Your task to perform on an android device: Search for Mexican restaurants on Maps Image 0: 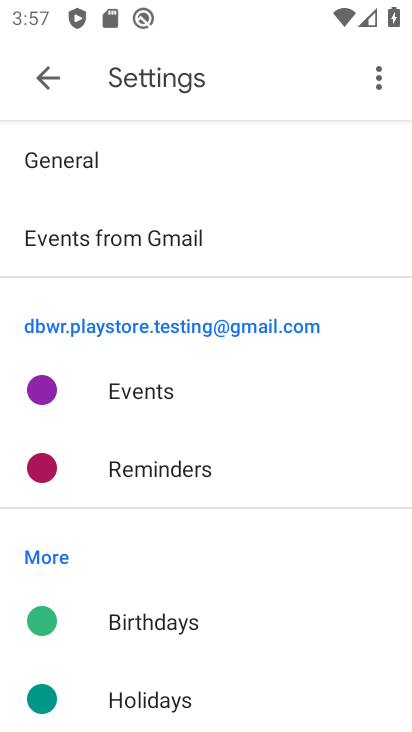
Step 0: press home button
Your task to perform on an android device: Search for Mexican restaurants on Maps Image 1: 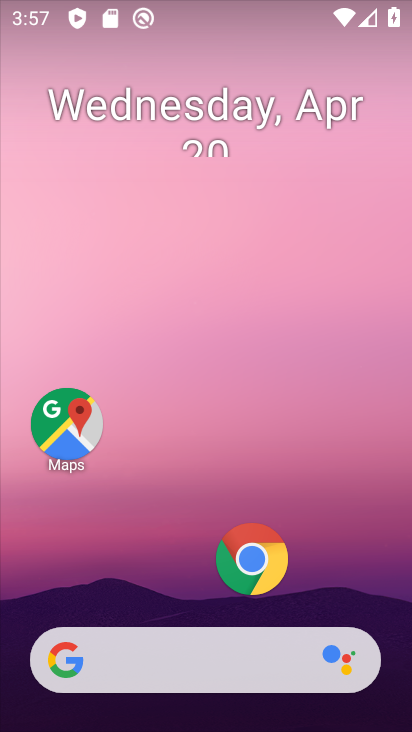
Step 1: click (50, 423)
Your task to perform on an android device: Search for Mexican restaurants on Maps Image 2: 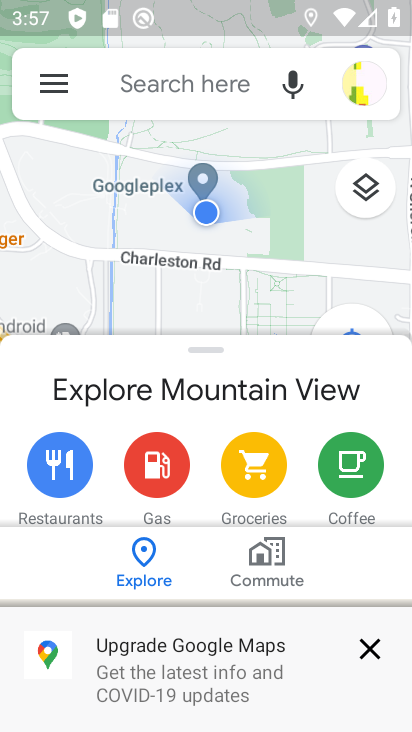
Step 2: click (171, 102)
Your task to perform on an android device: Search for Mexican restaurants on Maps Image 3: 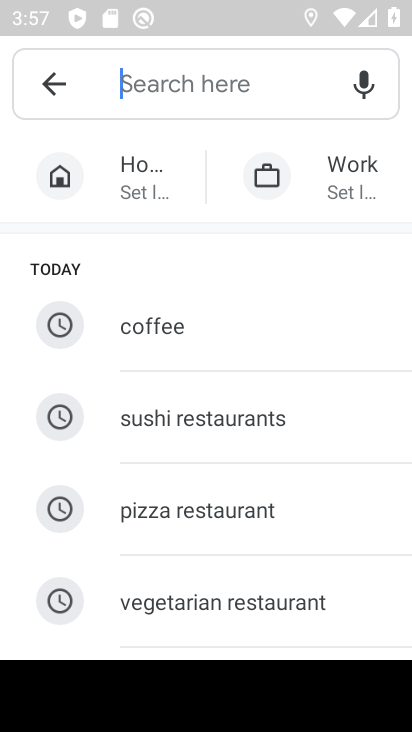
Step 3: type "Mexican restaurants"
Your task to perform on an android device: Search for Mexican restaurants on Maps Image 4: 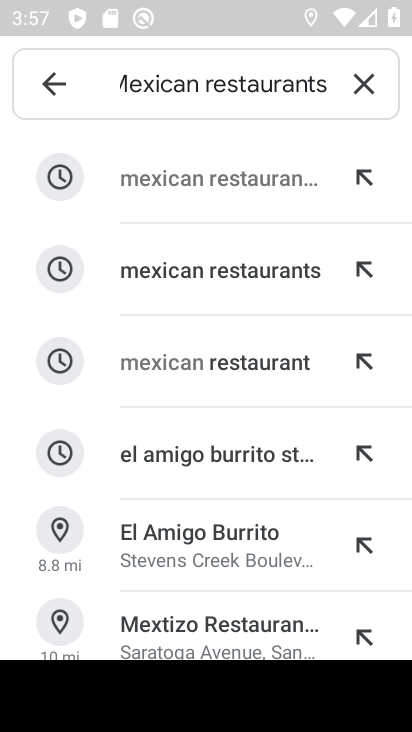
Step 4: click (148, 187)
Your task to perform on an android device: Search for Mexican restaurants on Maps Image 5: 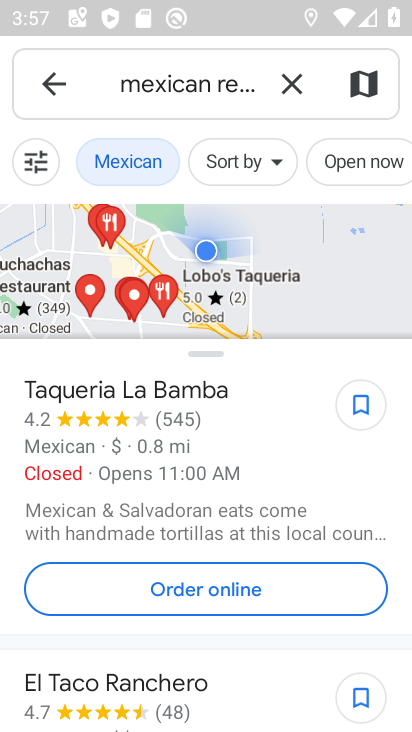
Step 5: task complete